Your task to perform on an android device: Open my contact list Image 0: 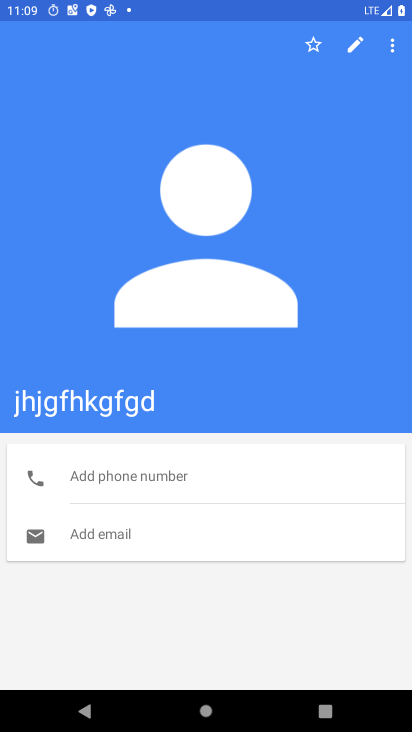
Step 0: press home button
Your task to perform on an android device: Open my contact list Image 1: 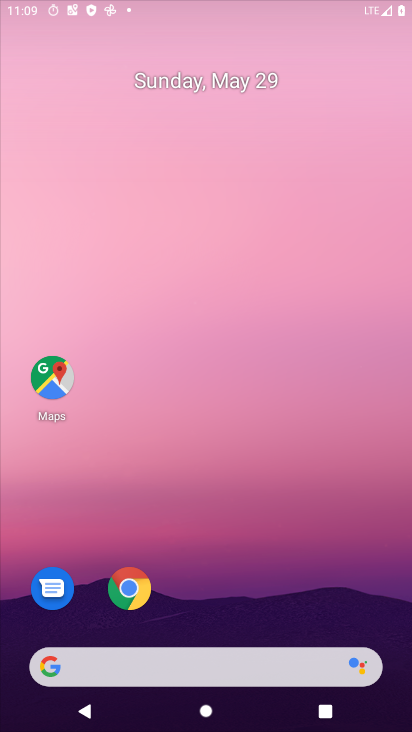
Step 1: drag from (235, 504) to (244, 195)
Your task to perform on an android device: Open my contact list Image 2: 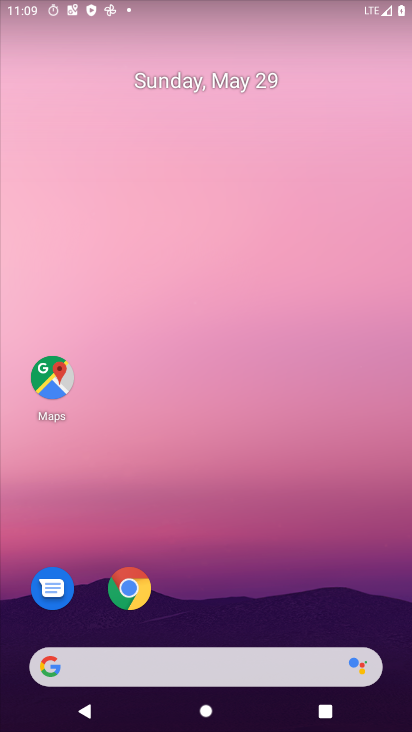
Step 2: drag from (216, 562) to (202, 140)
Your task to perform on an android device: Open my contact list Image 3: 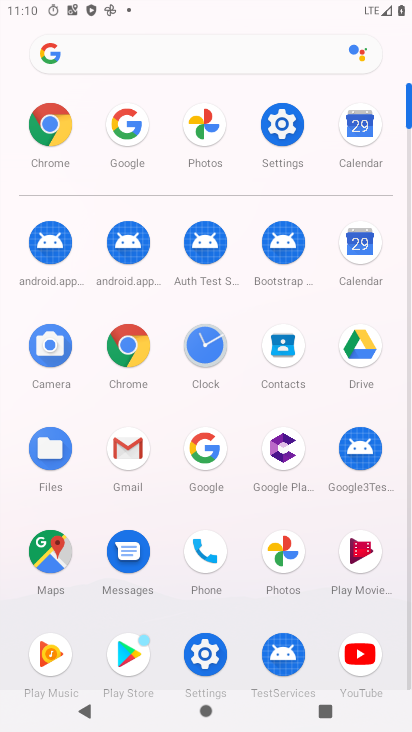
Step 3: click (291, 357)
Your task to perform on an android device: Open my contact list Image 4: 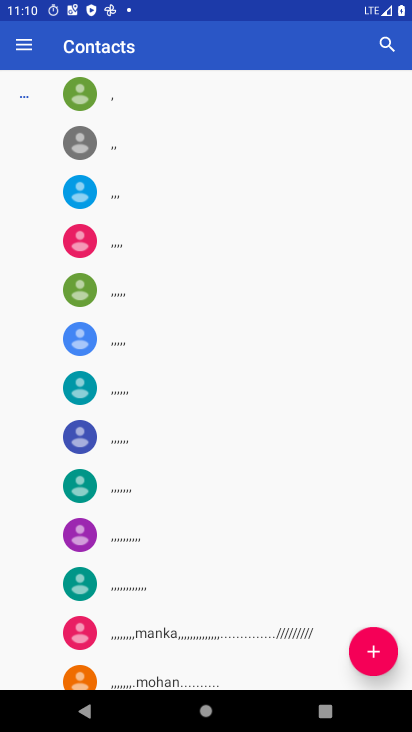
Step 4: task complete